Your task to perform on an android device: Go to settings Image 0: 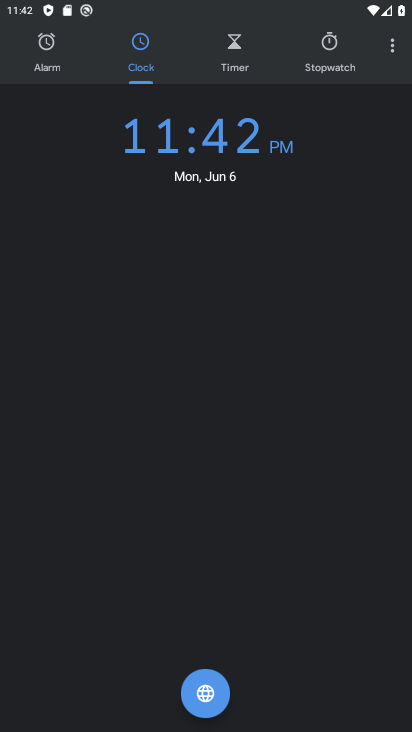
Step 0: press back button
Your task to perform on an android device: Go to settings Image 1: 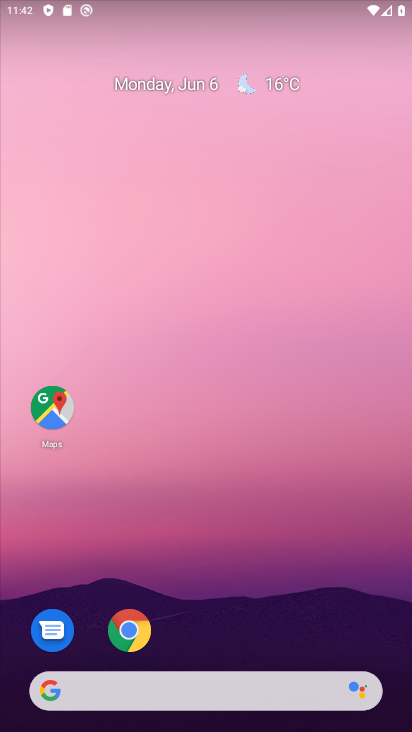
Step 1: drag from (204, 615) to (280, 81)
Your task to perform on an android device: Go to settings Image 2: 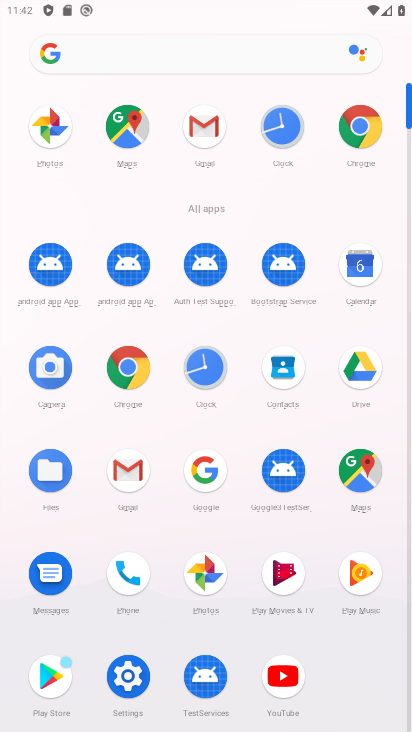
Step 2: click (139, 678)
Your task to perform on an android device: Go to settings Image 3: 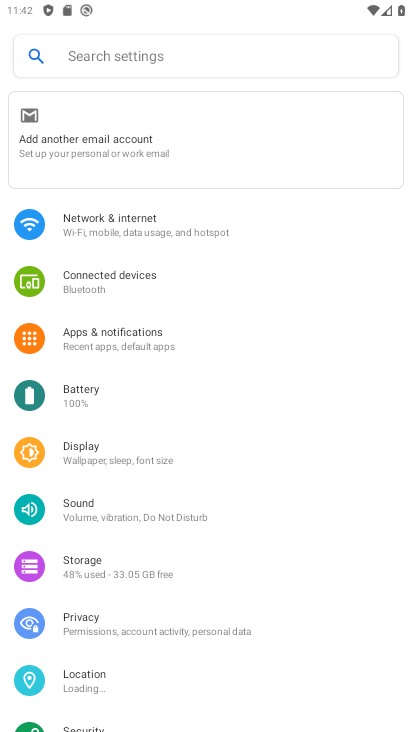
Step 3: task complete